Your task to perform on an android device: open wifi settings Image 0: 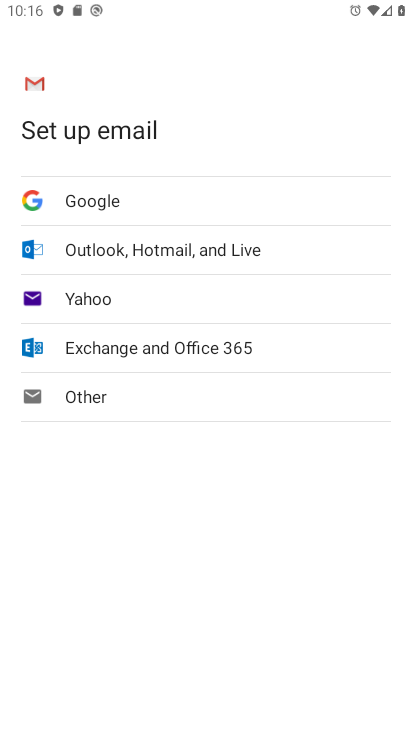
Step 0: press home button
Your task to perform on an android device: open wifi settings Image 1: 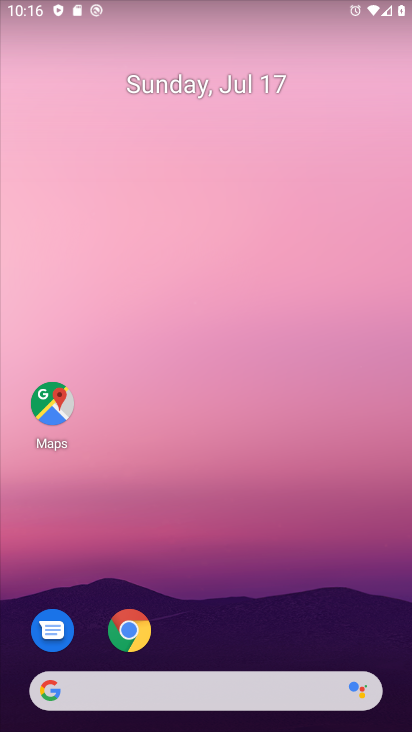
Step 1: drag from (373, 582) to (374, 99)
Your task to perform on an android device: open wifi settings Image 2: 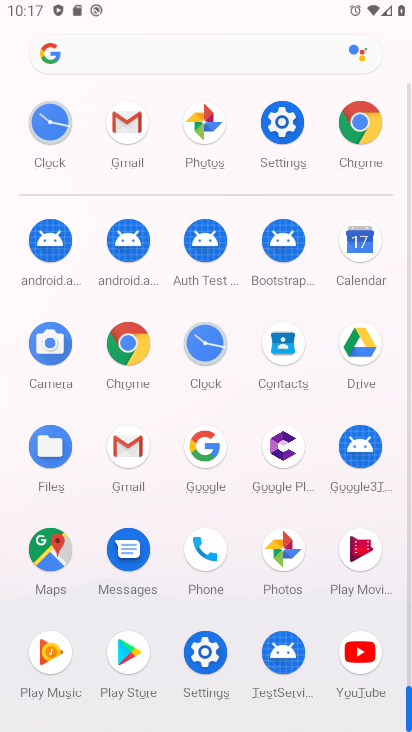
Step 2: click (280, 132)
Your task to perform on an android device: open wifi settings Image 3: 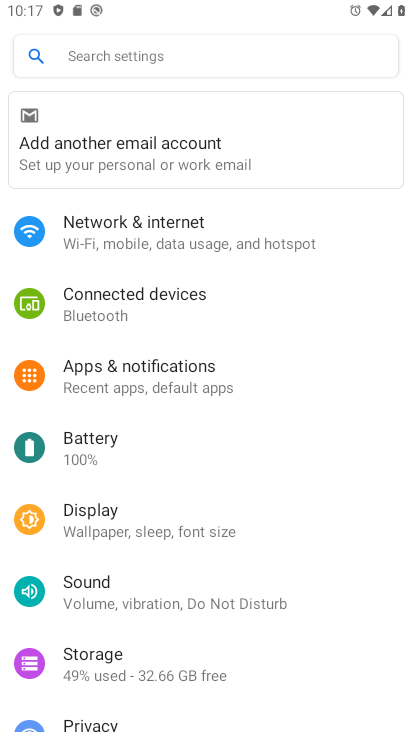
Step 3: drag from (331, 376) to (343, 285)
Your task to perform on an android device: open wifi settings Image 4: 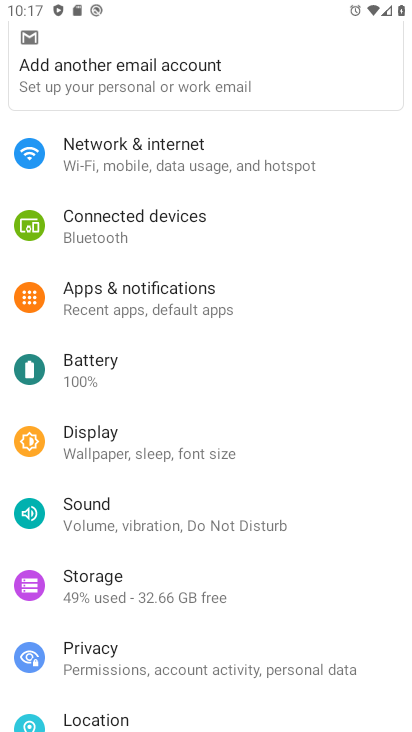
Step 4: drag from (340, 396) to (344, 314)
Your task to perform on an android device: open wifi settings Image 5: 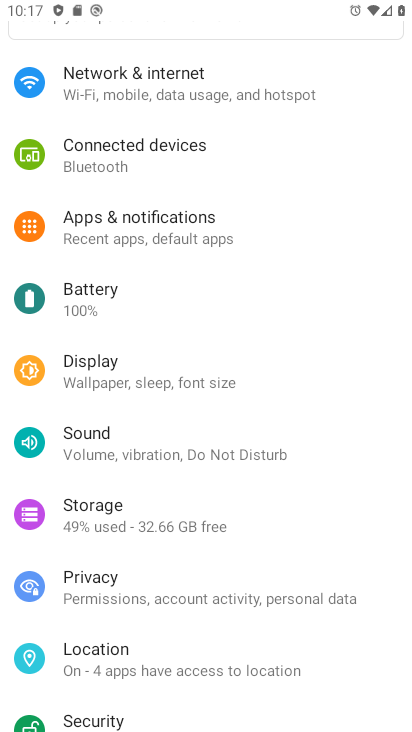
Step 5: drag from (345, 396) to (360, 314)
Your task to perform on an android device: open wifi settings Image 6: 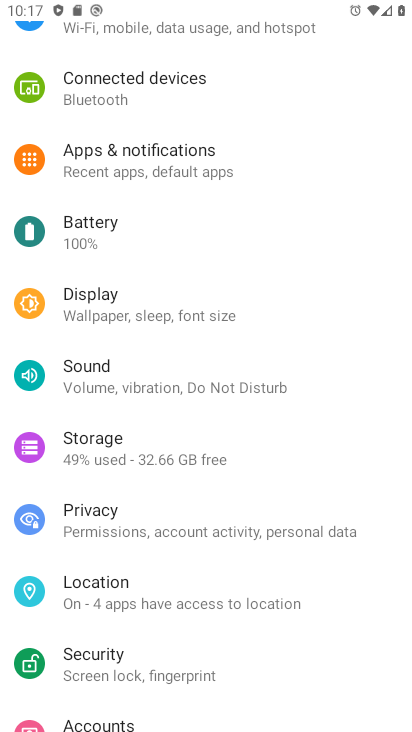
Step 6: drag from (345, 417) to (357, 336)
Your task to perform on an android device: open wifi settings Image 7: 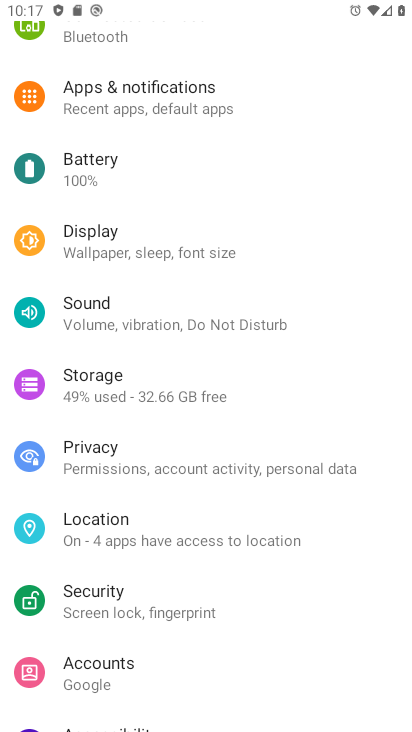
Step 7: drag from (358, 474) to (359, 330)
Your task to perform on an android device: open wifi settings Image 8: 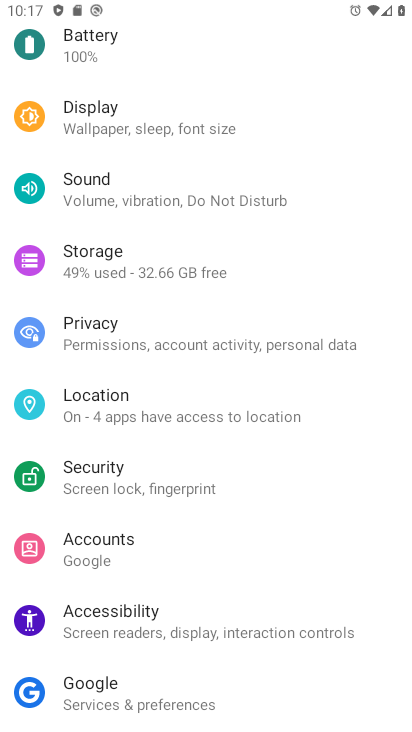
Step 8: drag from (348, 452) to (355, 325)
Your task to perform on an android device: open wifi settings Image 9: 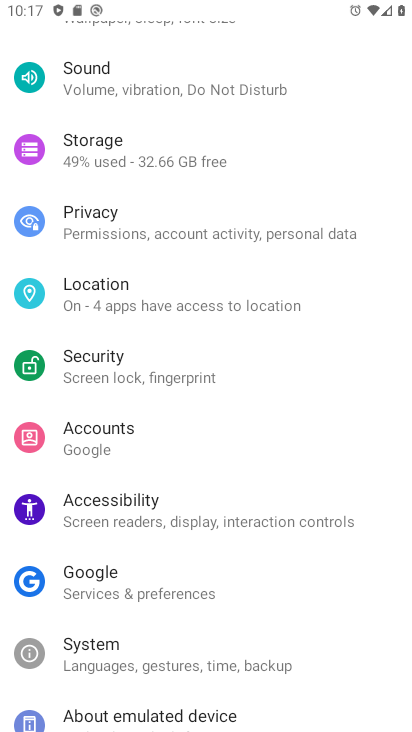
Step 9: drag from (345, 464) to (349, 337)
Your task to perform on an android device: open wifi settings Image 10: 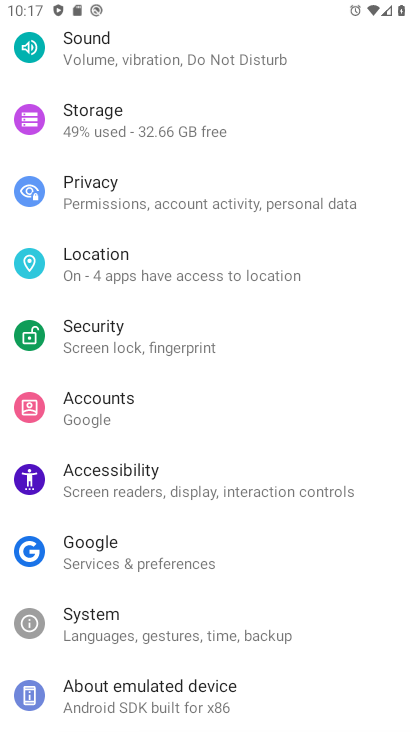
Step 10: drag from (358, 301) to (357, 424)
Your task to perform on an android device: open wifi settings Image 11: 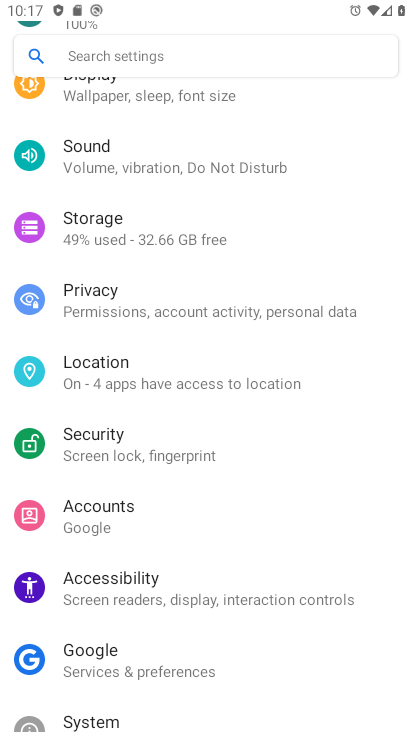
Step 11: drag from (357, 352) to (359, 455)
Your task to perform on an android device: open wifi settings Image 12: 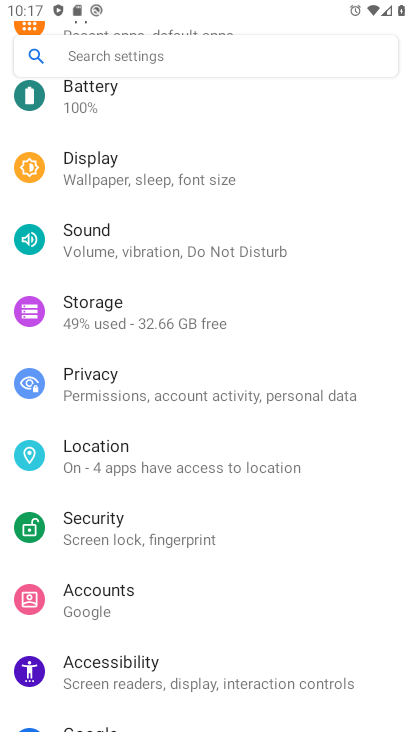
Step 12: drag from (358, 289) to (364, 385)
Your task to perform on an android device: open wifi settings Image 13: 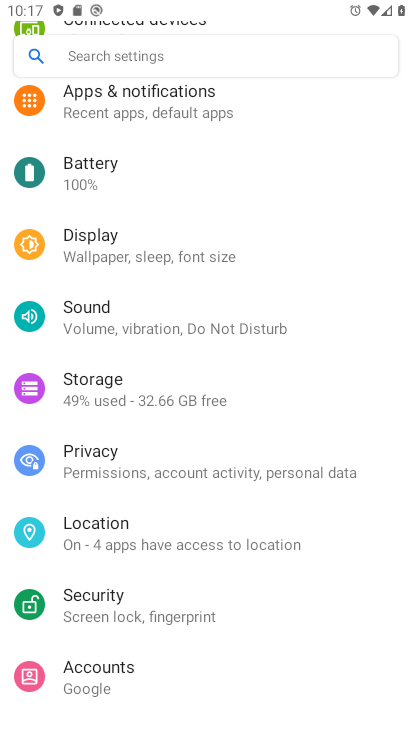
Step 13: drag from (356, 266) to (352, 374)
Your task to perform on an android device: open wifi settings Image 14: 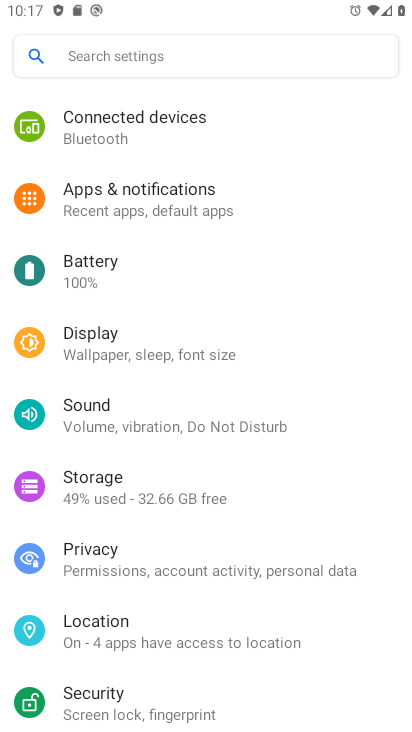
Step 14: drag from (332, 192) to (335, 391)
Your task to perform on an android device: open wifi settings Image 15: 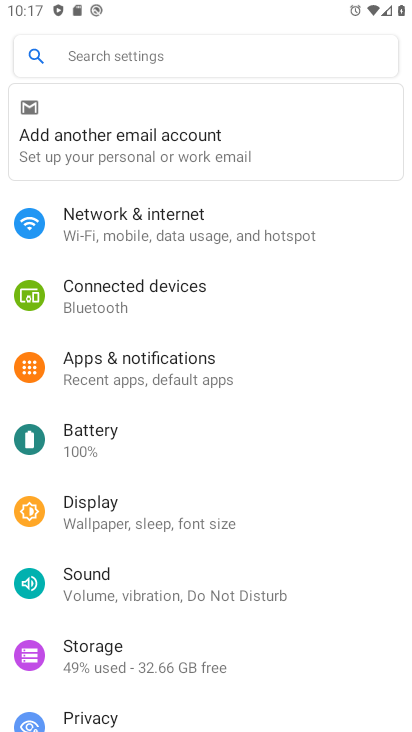
Step 15: click (248, 231)
Your task to perform on an android device: open wifi settings Image 16: 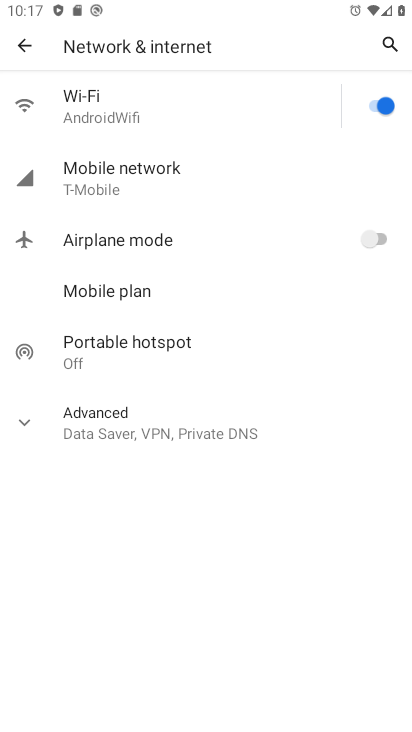
Step 16: click (111, 100)
Your task to perform on an android device: open wifi settings Image 17: 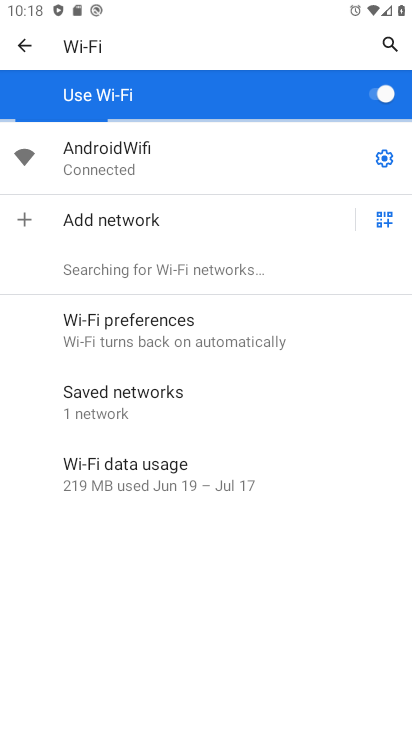
Step 17: task complete